Your task to perform on an android device: turn on the 12-hour format for clock Image 0: 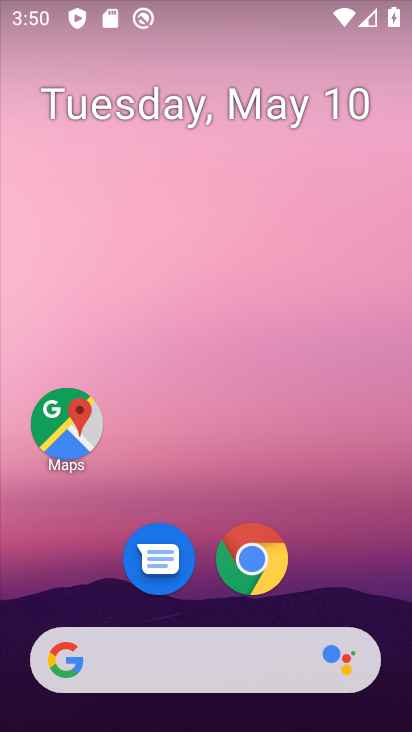
Step 0: drag from (74, 639) to (268, 113)
Your task to perform on an android device: turn on the 12-hour format for clock Image 1: 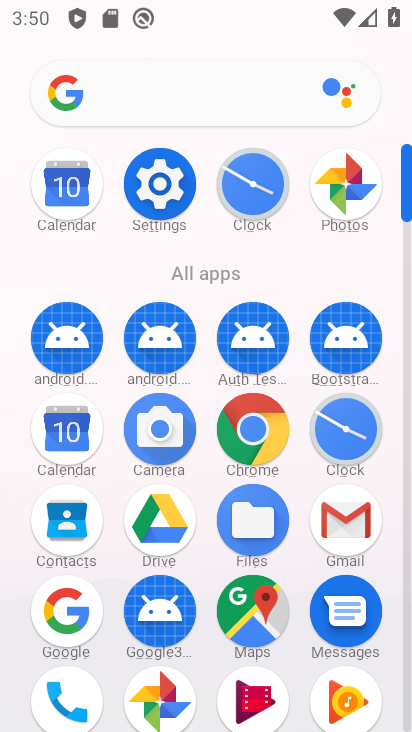
Step 1: click (358, 449)
Your task to perform on an android device: turn on the 12-hour format for clock Image 2: 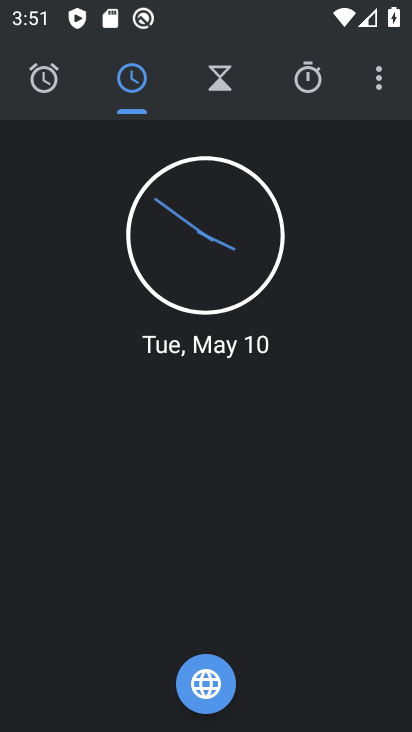
Step 2: click (369, 86)
Your task to perform on an android device: turn on the 12-hour format for clock Image 3: 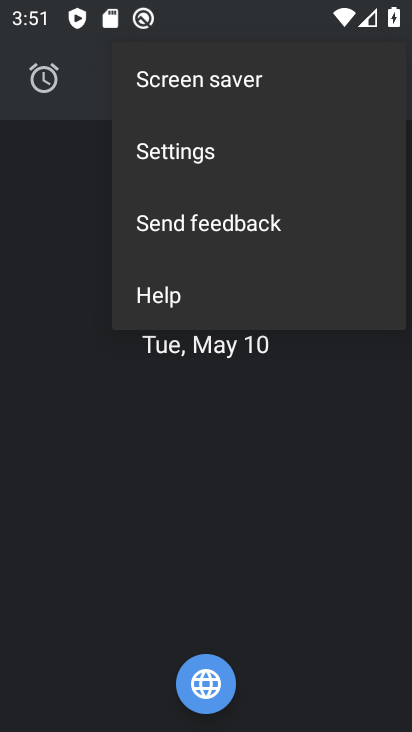
Step 3: click (297, 139)
Your task to perform on an android device: turn on the 12-hour format for clock Image 4: 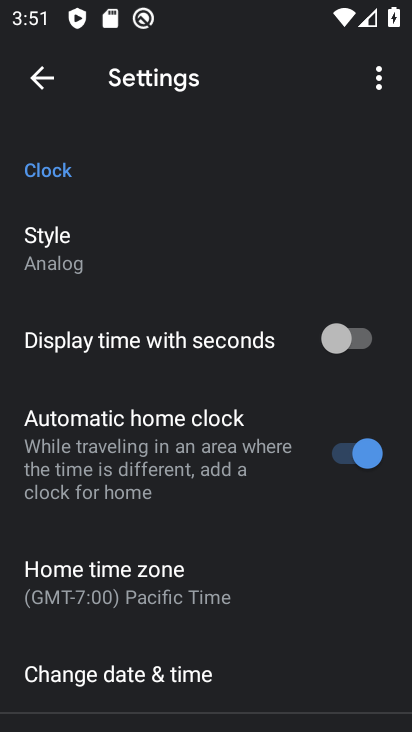
Step 4: click (171, 681)
Your task to perform on an android device: turn on the 12-hour format for clock Image 5: 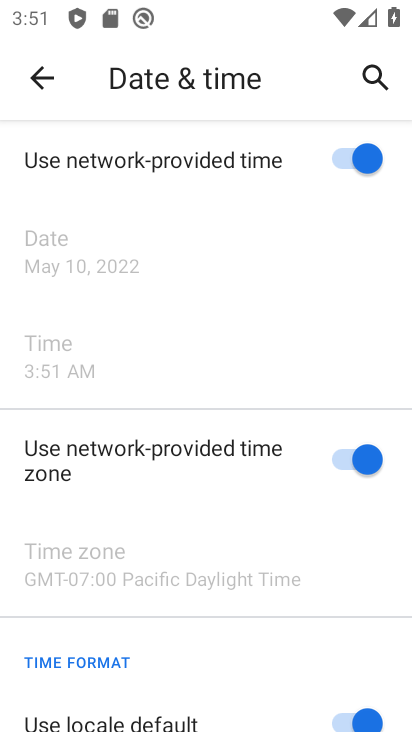
Step 5: task complete